Your task to perform on an android device: Show me the alarms in the clock app Image 0: 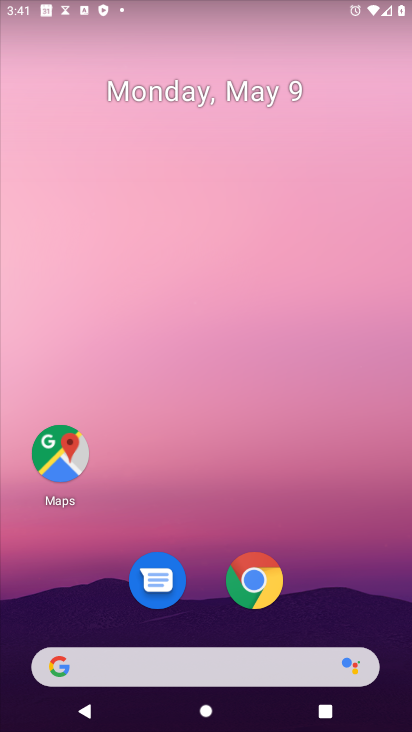
Step 0: drag from (322, 486) to (261, 30)
Your task to perform on an android device: Show me the alarms in the clock app Image 1: 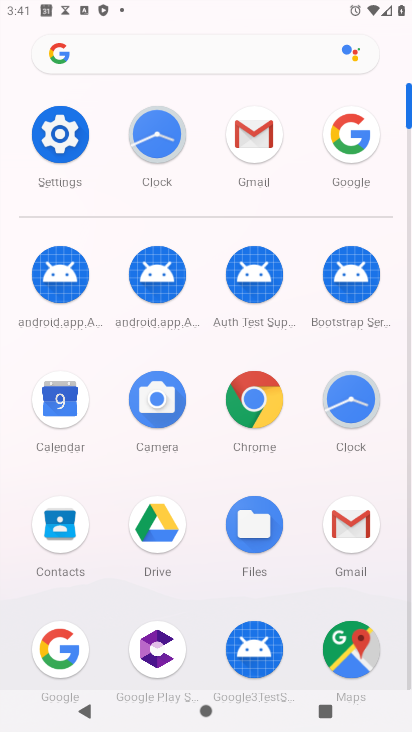
Step 1: click (347, 411)
Your task to perform on an android device: Show me the alarms in the clock app Image 2: 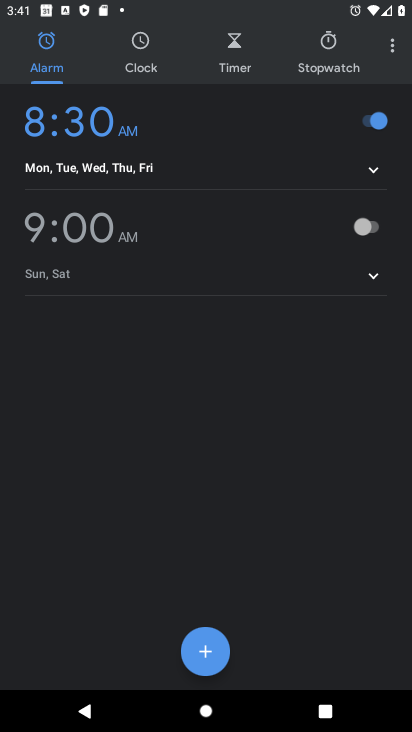
Step 2: task complete